Your task to perform on an android device: See recent photos Image 0: 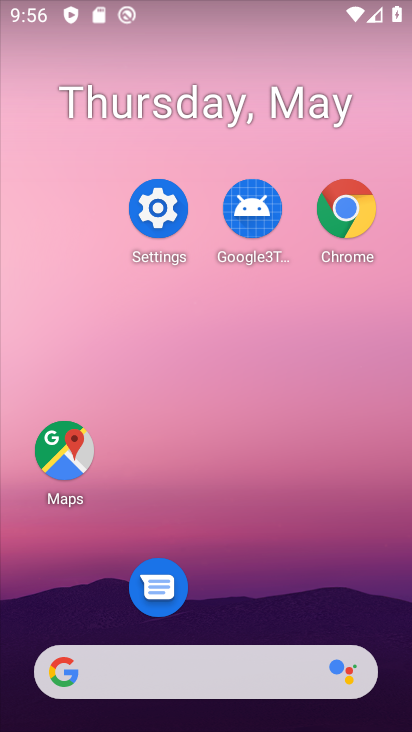
Step 0: drag from (206, 603) to (253, 3)
Your task to perform on an android device: See recent photos Image 1: 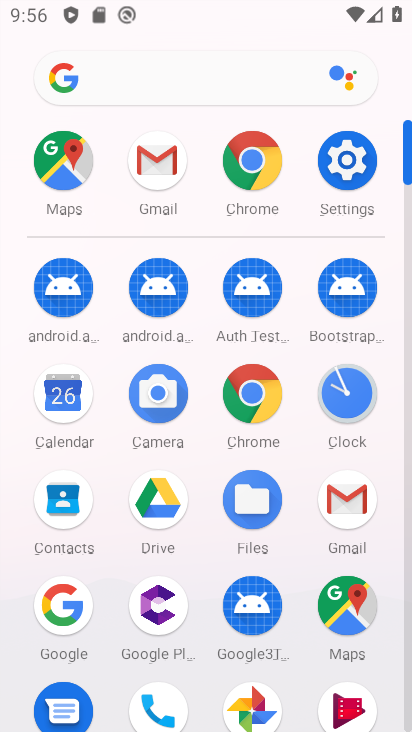
Step 1: click (246, 711)
Your task to perform on an android device: See recent photos Image 2: 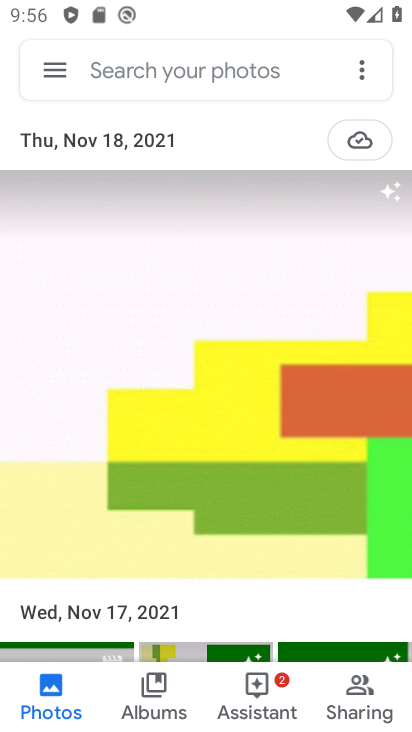
Step 2: task complete